Your task to perform on an android device: Go to eBay Image 0: 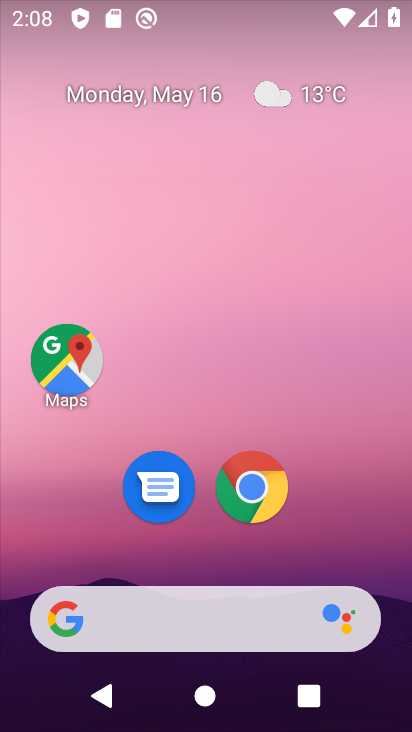
Step 0: click (253, 489)
Your task to perform on an android device: Go to eBay Image 1: 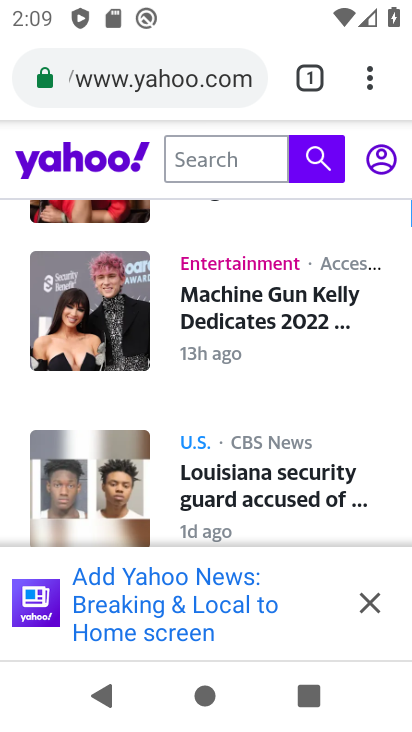
Step 1: click (371, 86)
Your task to perform on an android device: Go to eBay Image 2: 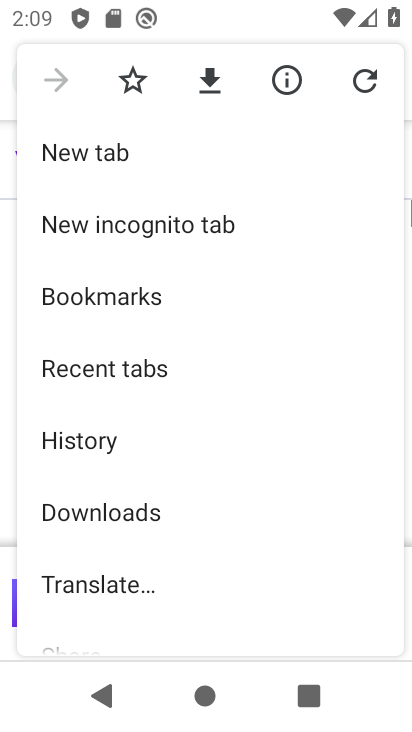
Step 2: press back button
Your task to perform on an android device: Go to eBay Image 3: 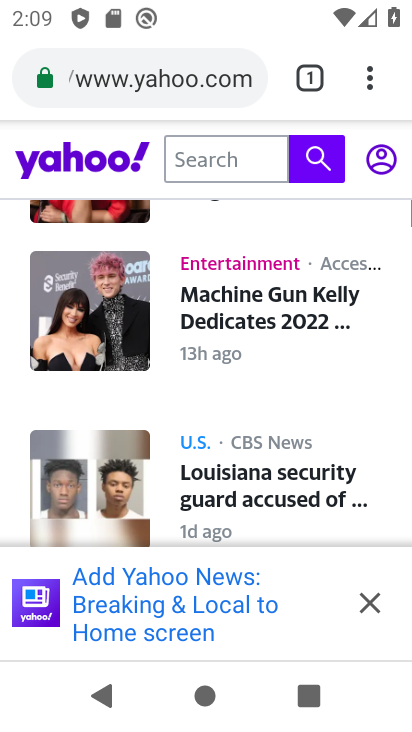
Step 3: click (372, 78)
Your task to perform on an android device: Go to eBay Image 4: 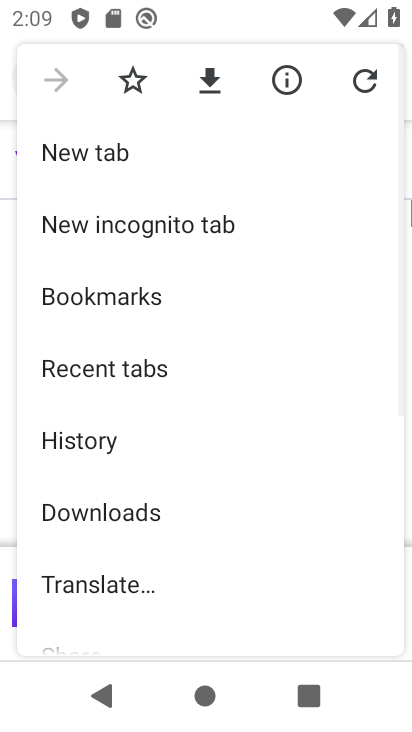
Step 4: click (98, 162)
Your task to perform on an android device: Go to eBay Image 5: 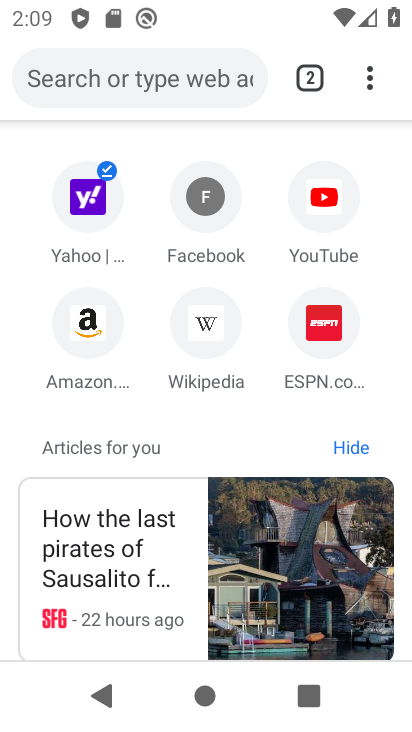
Step 5: click (137, 80)
Your task to perform on an android device: Go to eBay Image 6: 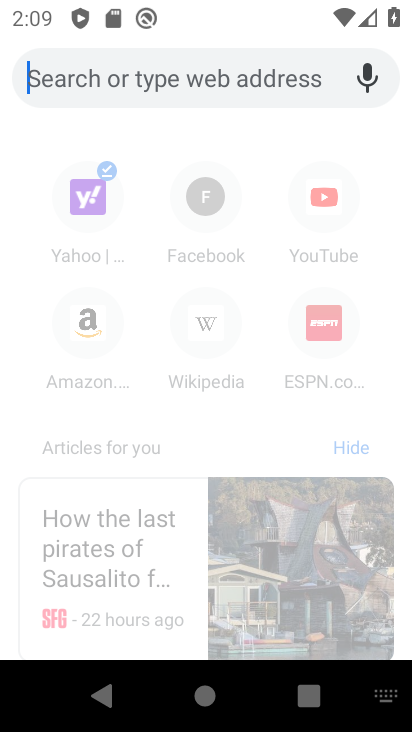
Step 6: type "ebay"
Your task to perform on an android device: Go to eBay Image 7: 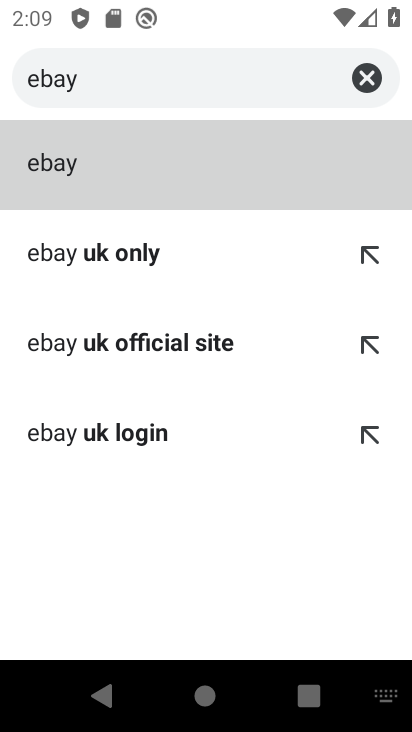
Step 7: click (80, 173)
Your task to perform on an android device: Go to eBay Image 8: 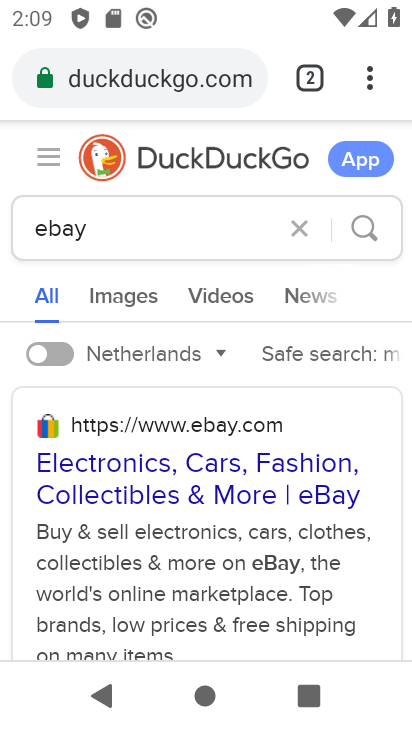
Step 8: drag from (167, 561) to (173, 333)
Your task to perform on an android device: Go to eBay Image 9: 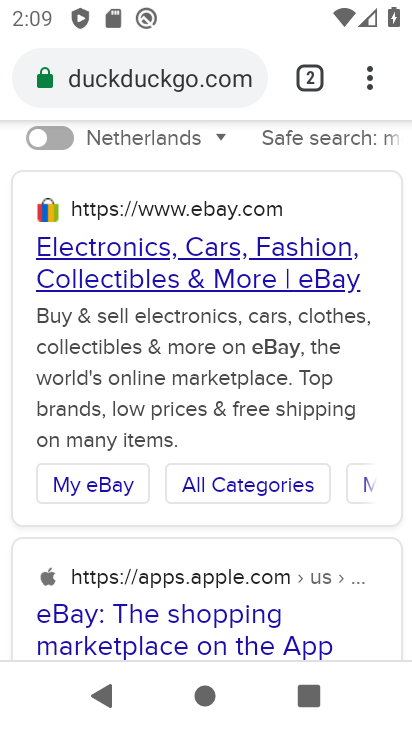
Step 9: click (153, 259)
Your task to perform on an android device: Go to eBay Image 10: 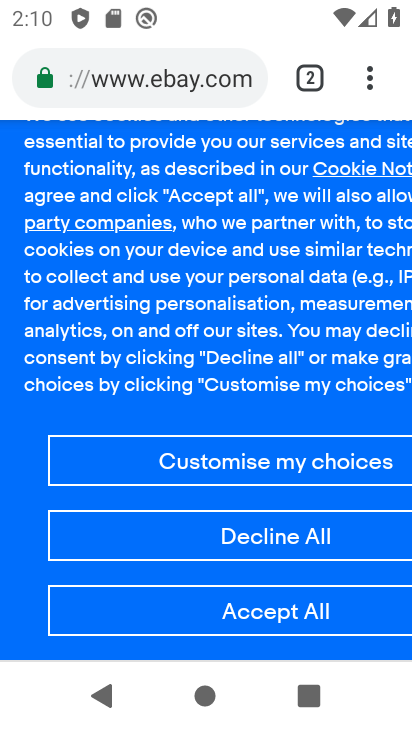
Step 10: click (253, 615)
Your task to perform on an android device: Go to eBay Image 11: 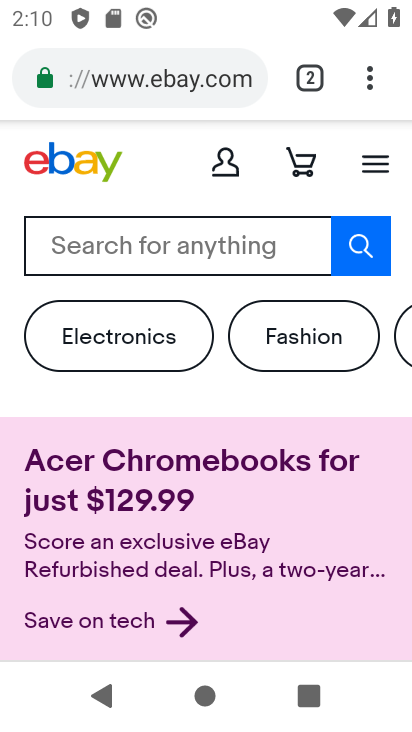
Step 11: task complete